Your task to perform on an android device: Go to location settings Image 0: 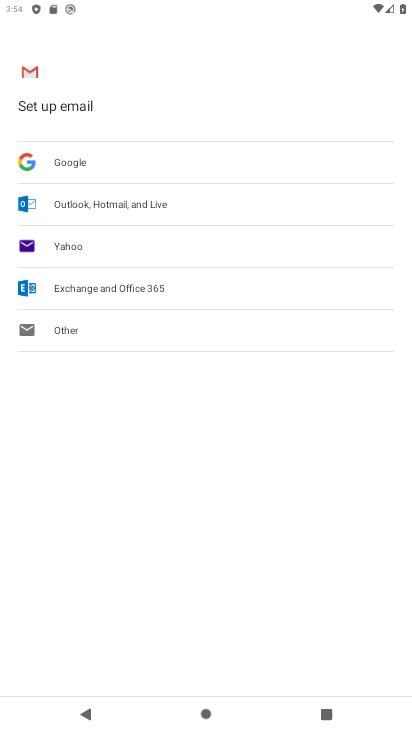
Step 0: press back button
Your task to perform on an android device: Go to location settings Image 1: 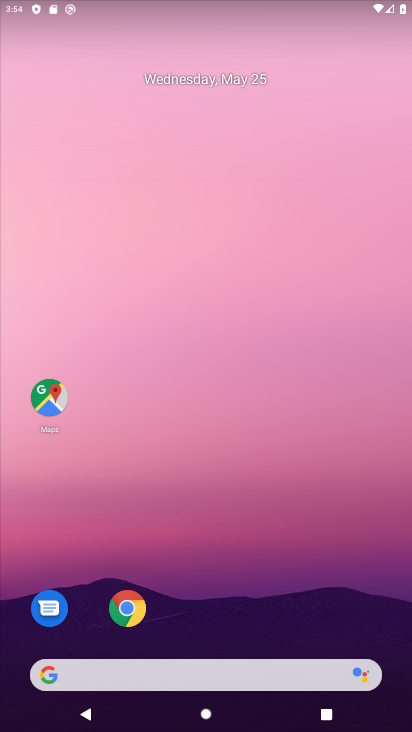
Step 1: drag from (269, 602) to (259, 111)
Your task to perform on an android device: Go to location settings Image 2: 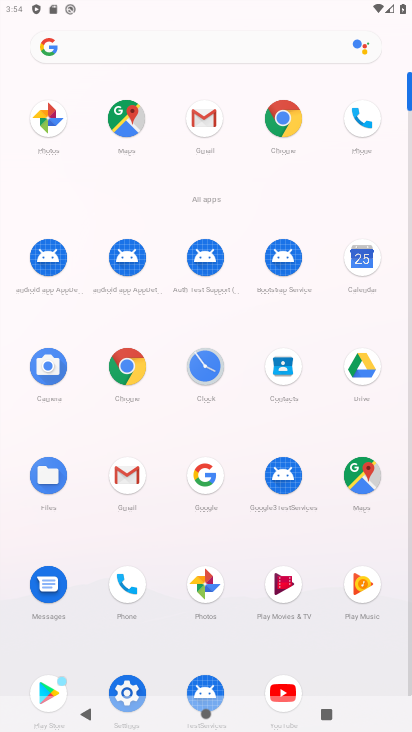
Step 2: drag from (175, 539) to (181, 416)
Your task to perform on an android device: Go to location settings Image 3: 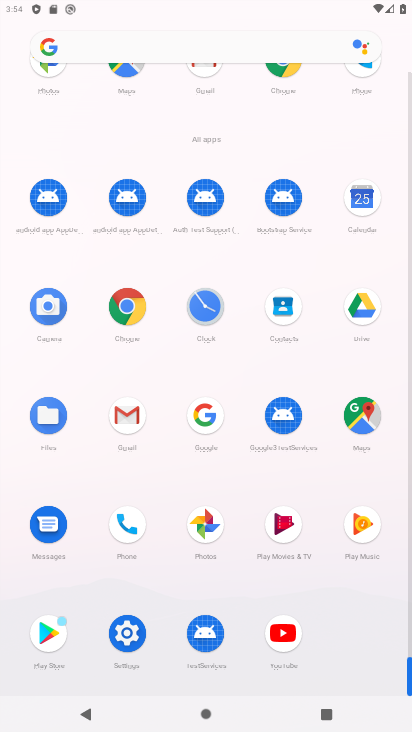
Step 3: click (127, 632)
Your task to perform on an android device: Go to location settings Image 4: 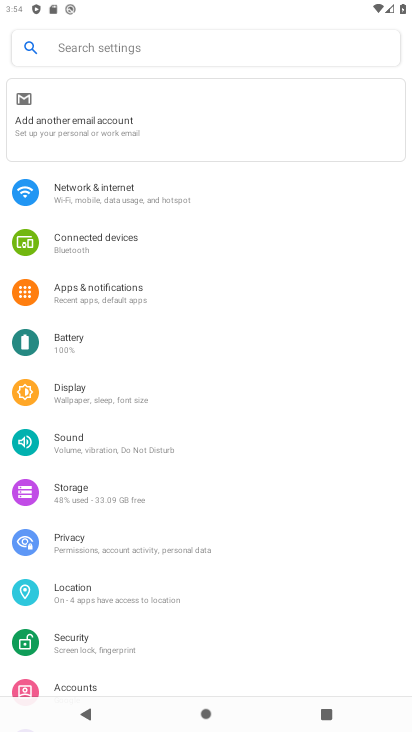
Step 4: click (74, 596)
Your task to perform on an android device: Go to location settings Image 5: 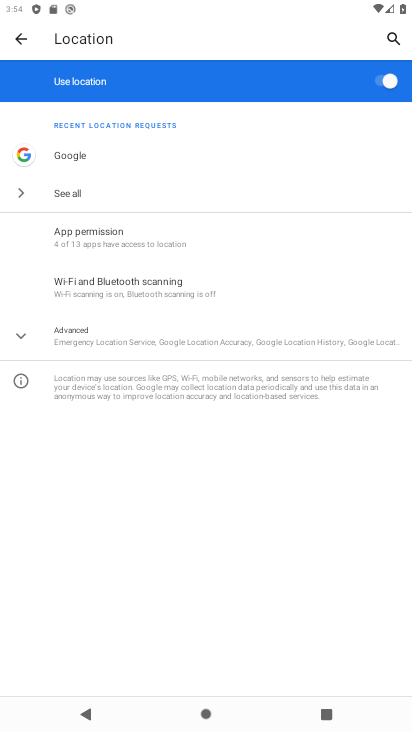
Step 5: task complete